Your task to perform on an android device: Find coffee shops on Maps Image 0: 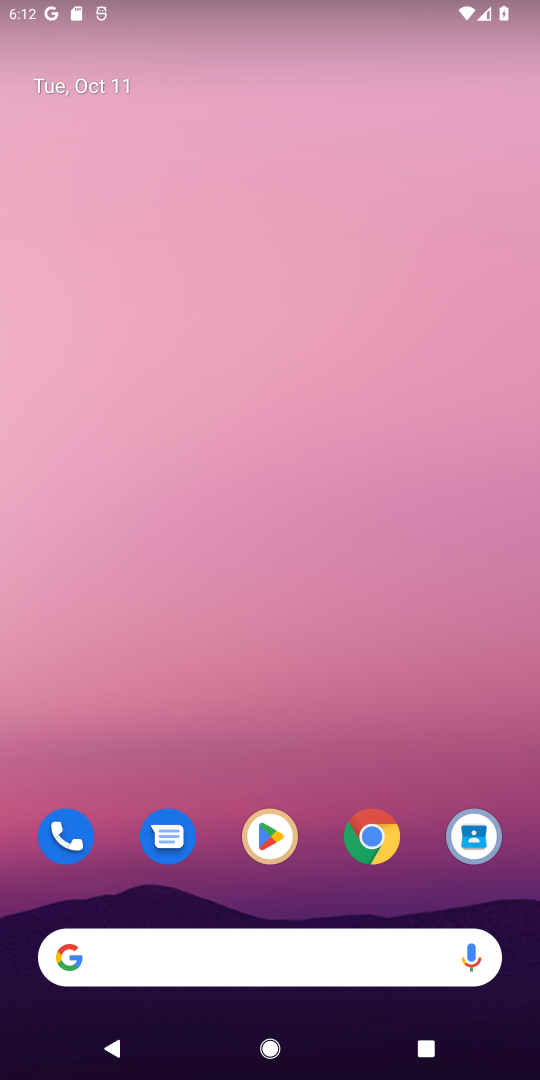
Step 0: drag from (316, 902) to (527, 89)
Your task to perform on an android device: Find coffee shops on Maps Image 1: 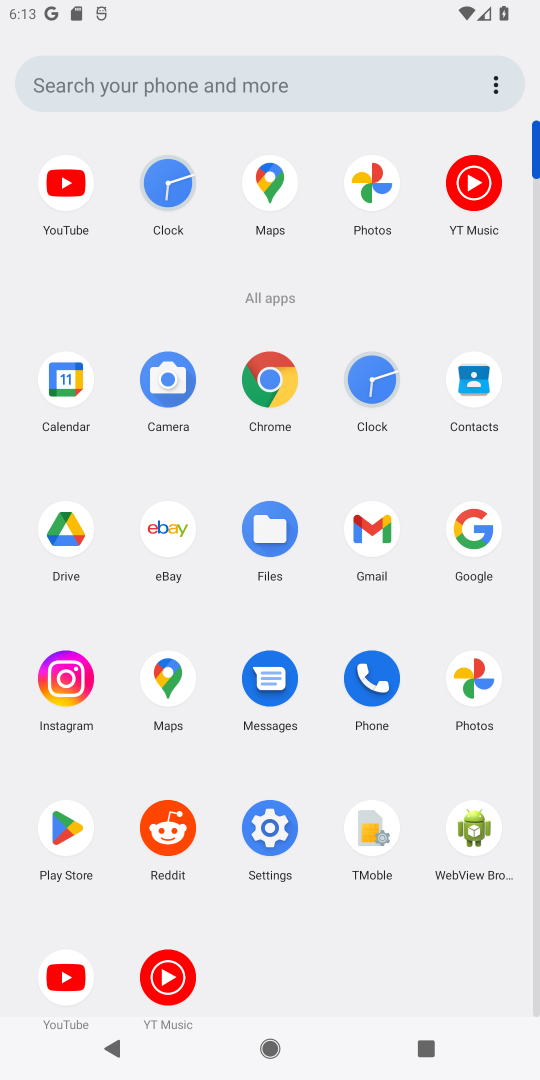
Step 1: click (271, 174)
Your task to perform on an android device: Find coffee shops on Maps Image 2: 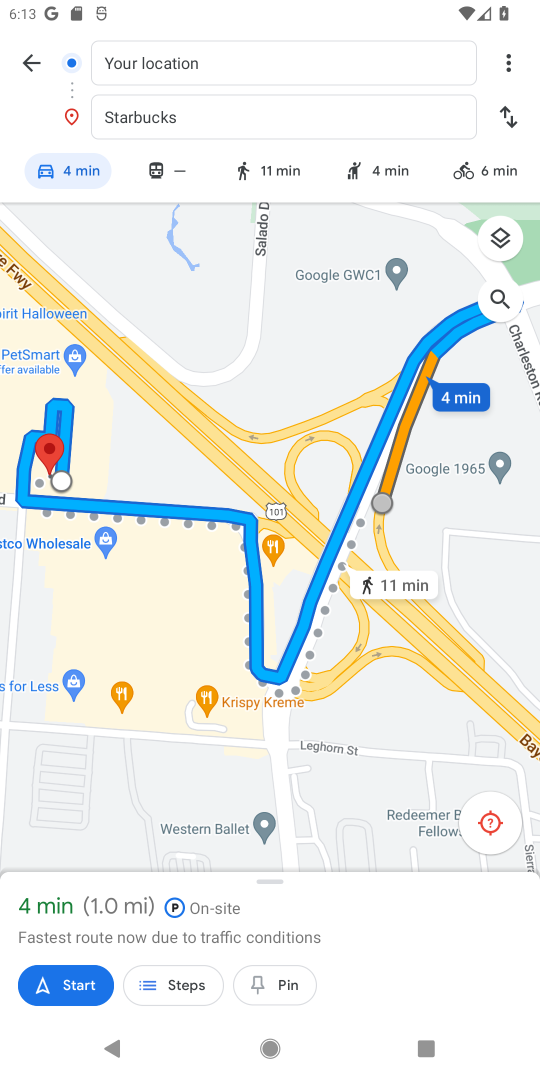
Step 2: click (30, 56)
Your task to perform on an android device: Find coffee shops on Maps Image 3: 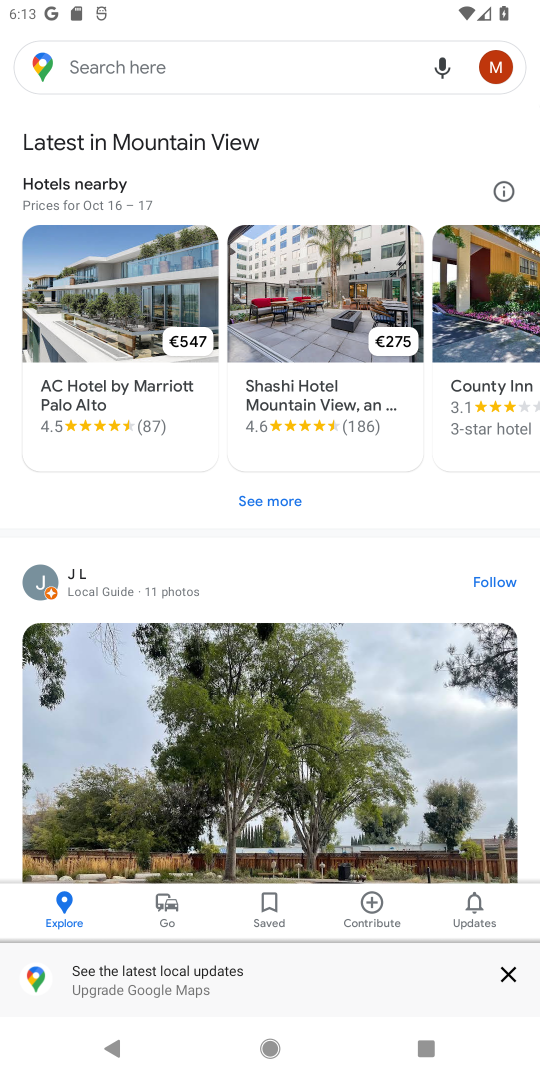
Step 3: click (279, 68)
Your task to perform on an android device: Find coffee shops on Maps Image 4: 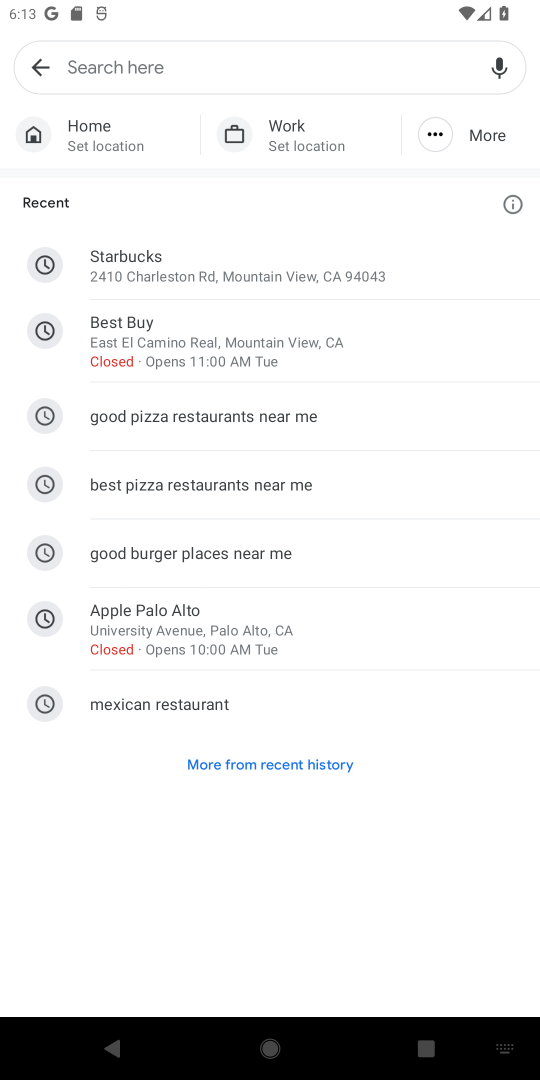
Step 4: type "coffee"
Your task to perform on an android device: Find coffee shops on Maps Image 5: 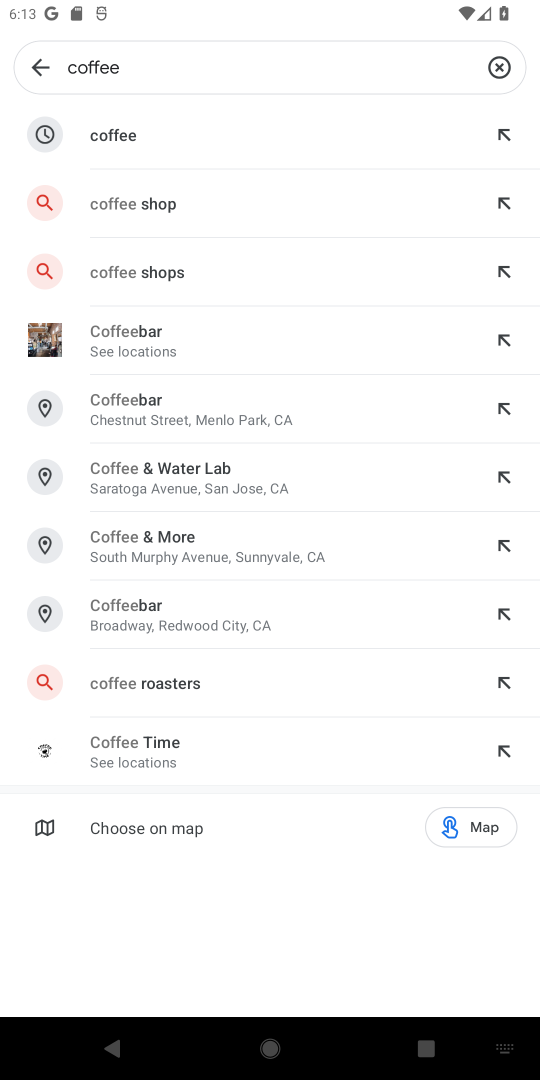
Step 5: click (227, 216)
Your task to perform on an android device: Find coffee shops on Maps Image 6: 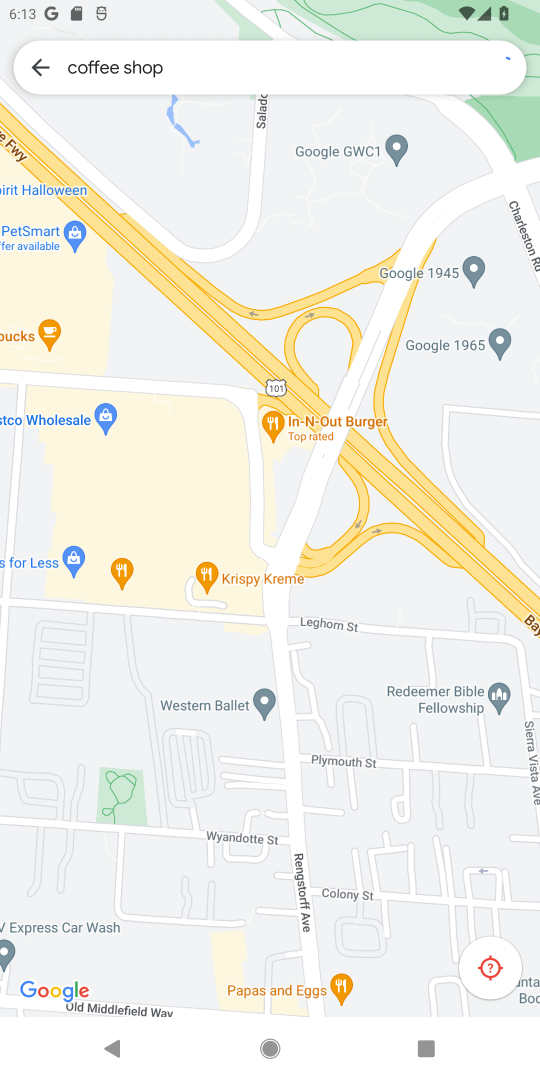
Step 6: task complete